Your task to perform on an android device: install app "The Home Depot" Image 0: 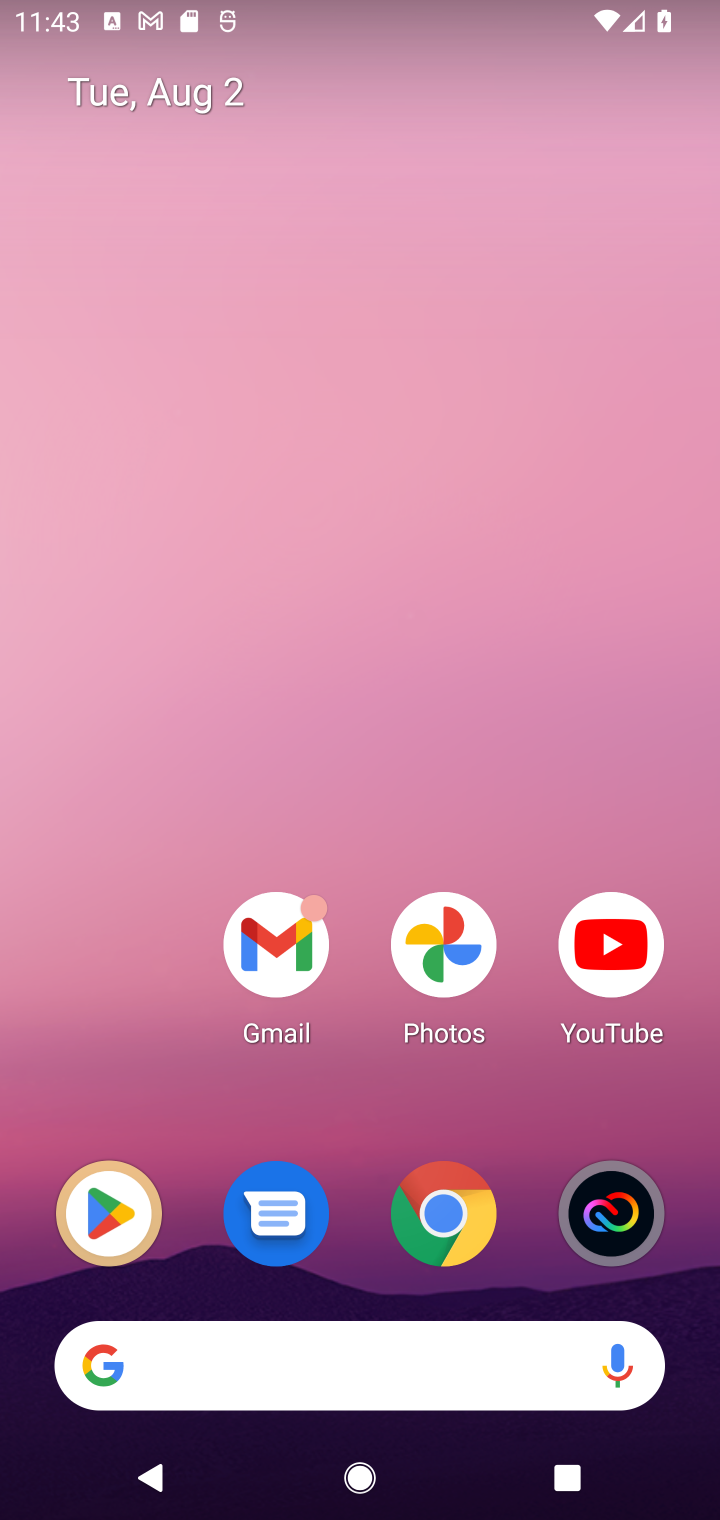
Step 0: click (95, 1201)
Your task to perform on an android device: install app "The Home Depot" Image 1: 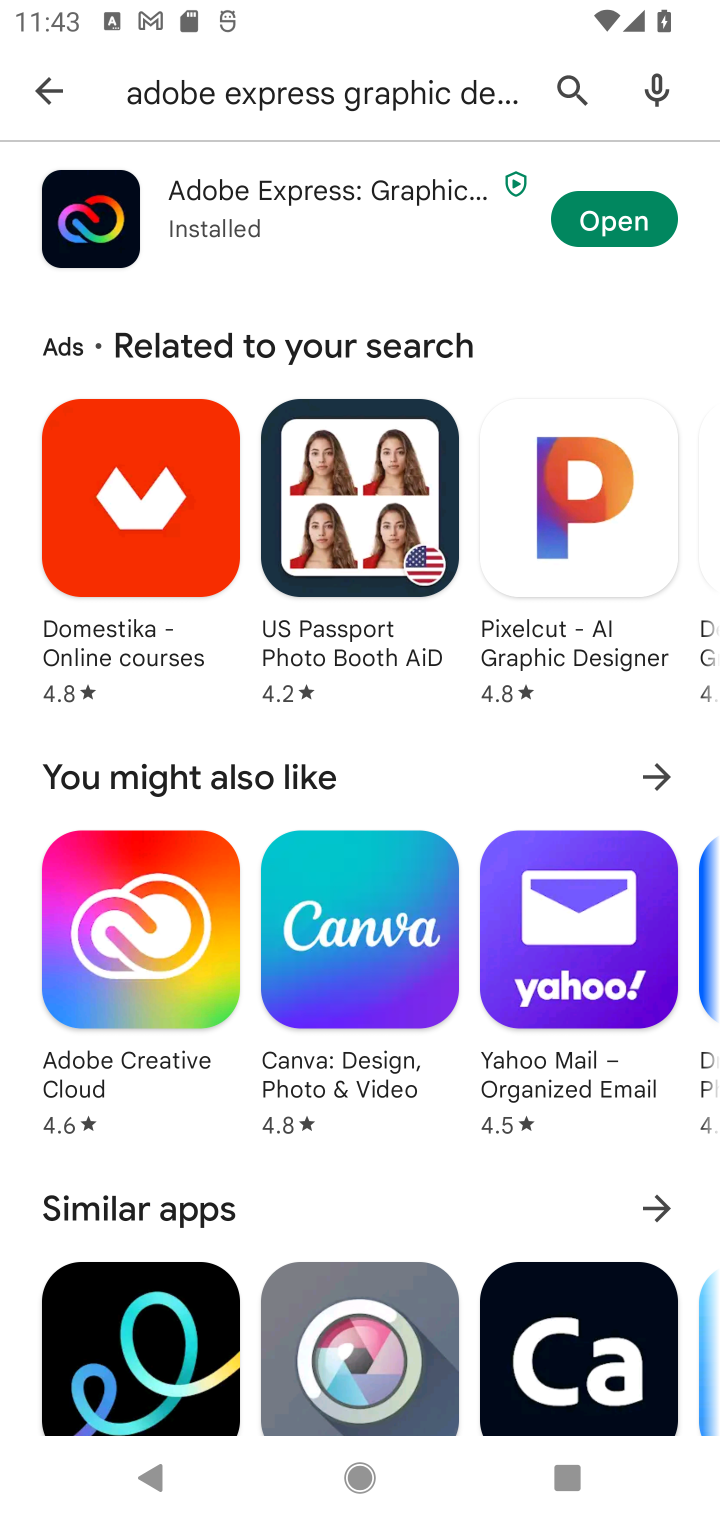
Step 1: click (56, 73)
Your task to perform on an android device: install app "The Home Depot" Image 2: 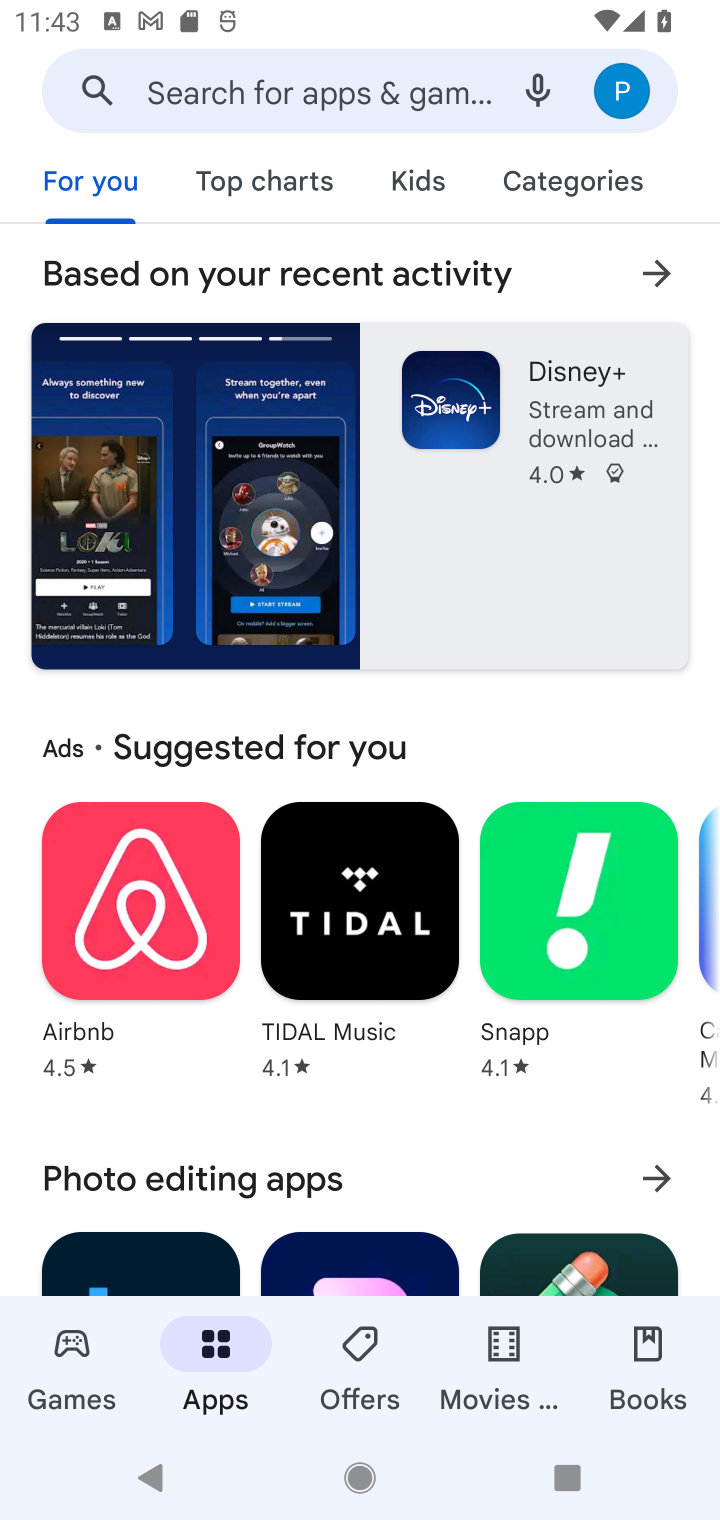
Step 2: click (293, 73)
Your task to perform on an android device: install app "The Home Depot" Image 3: 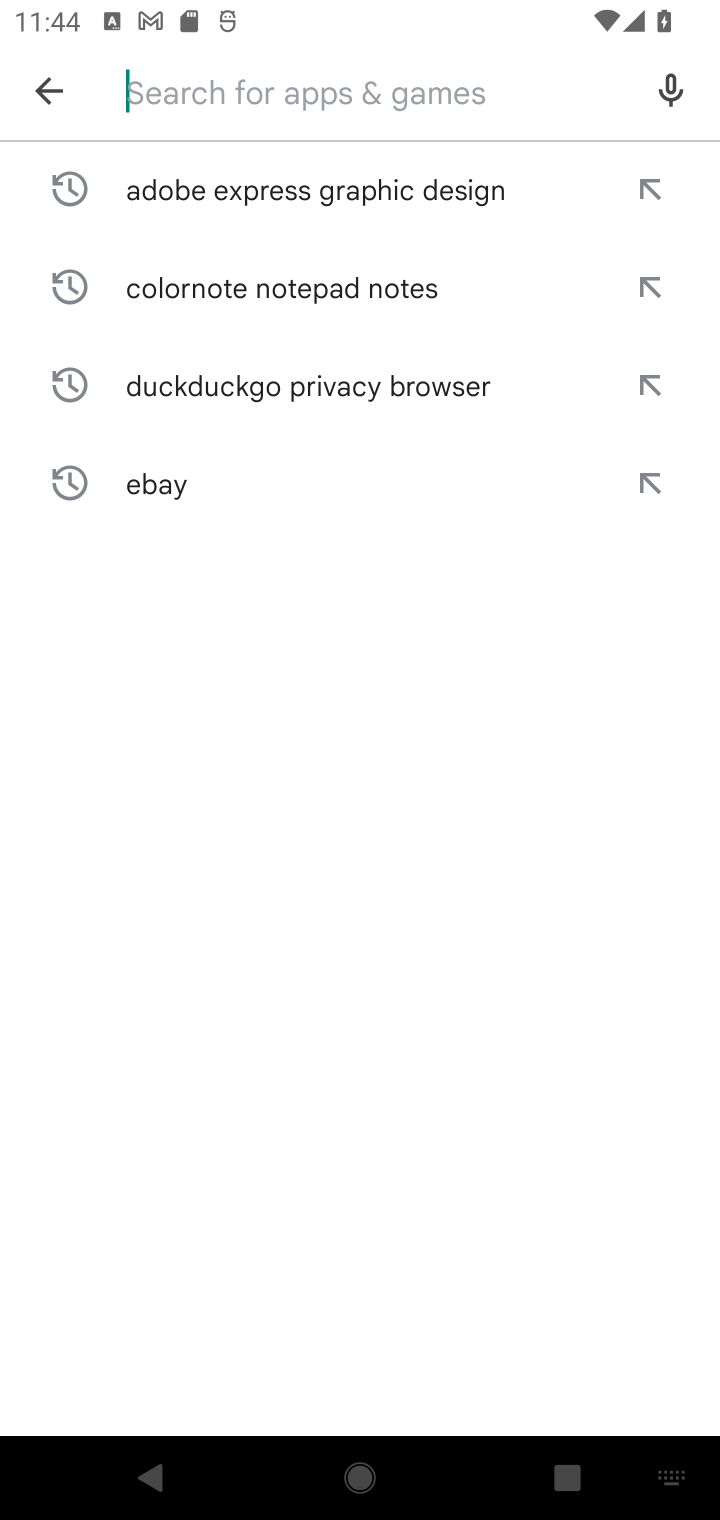
Step 3: type "The Home Depot"
Your task to perform on an android device: install app "The Home Depot" Image 4: 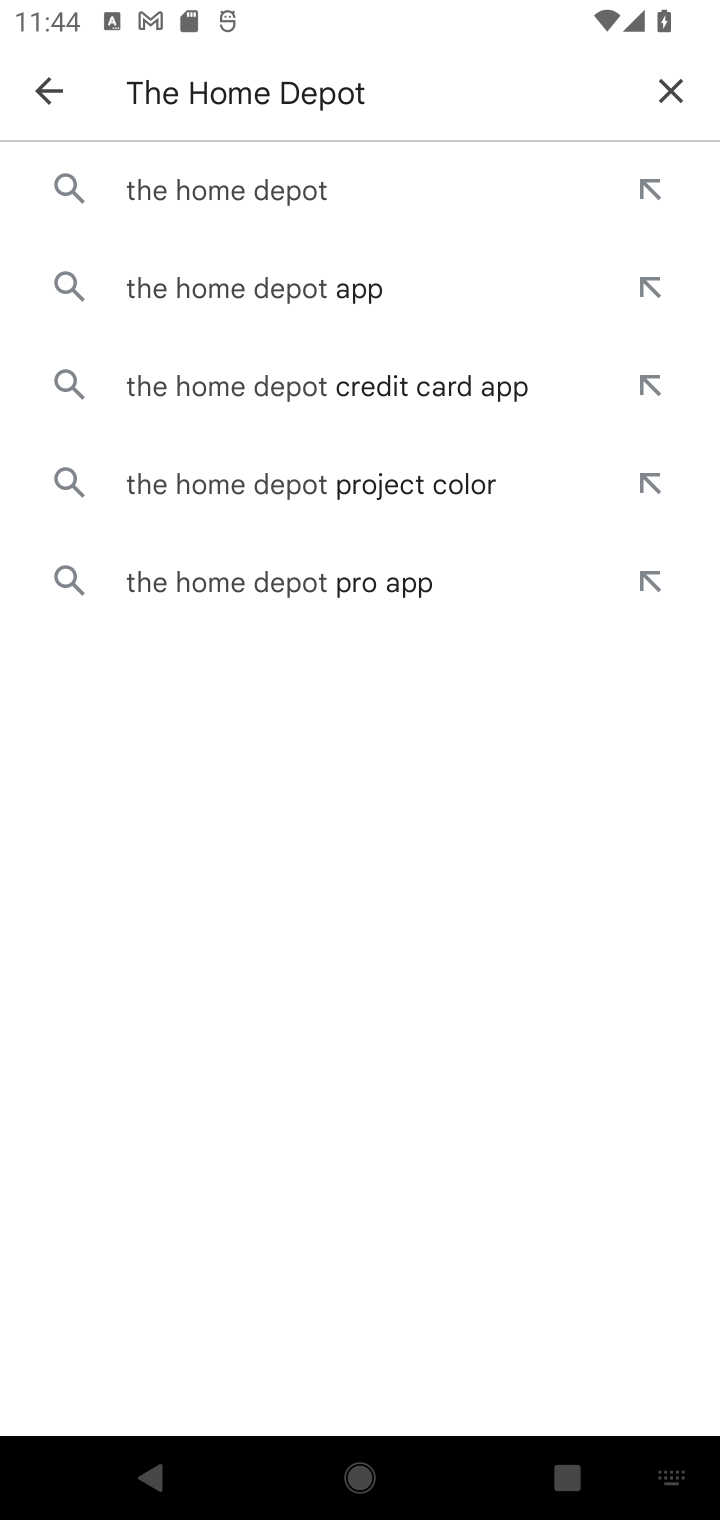
Step 4: click (233, 195)
Your task to perform on an android device: install app "The Home Depot" Image 5: 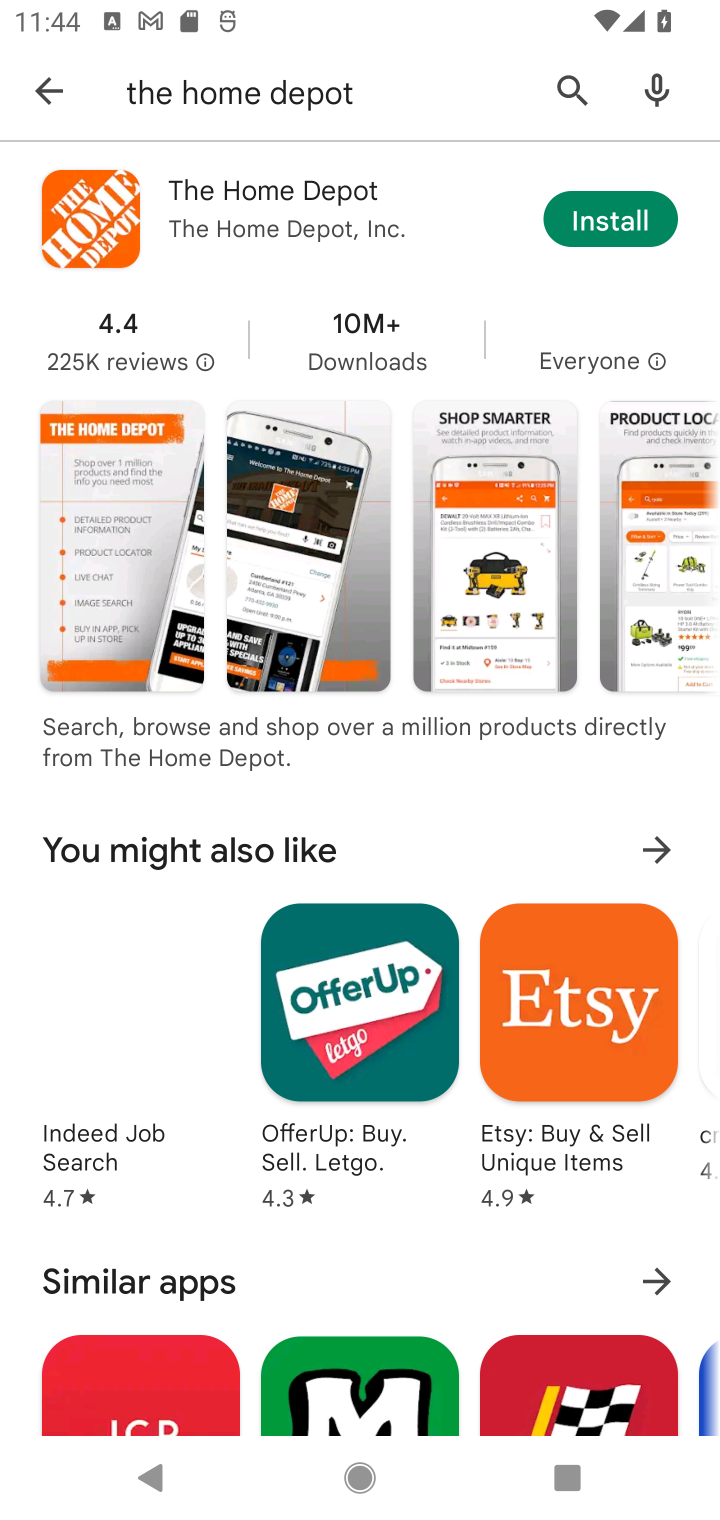
Step 5: click (588, 221)
Your task to perform on an android device: install app "The Home Depot" Image 6: 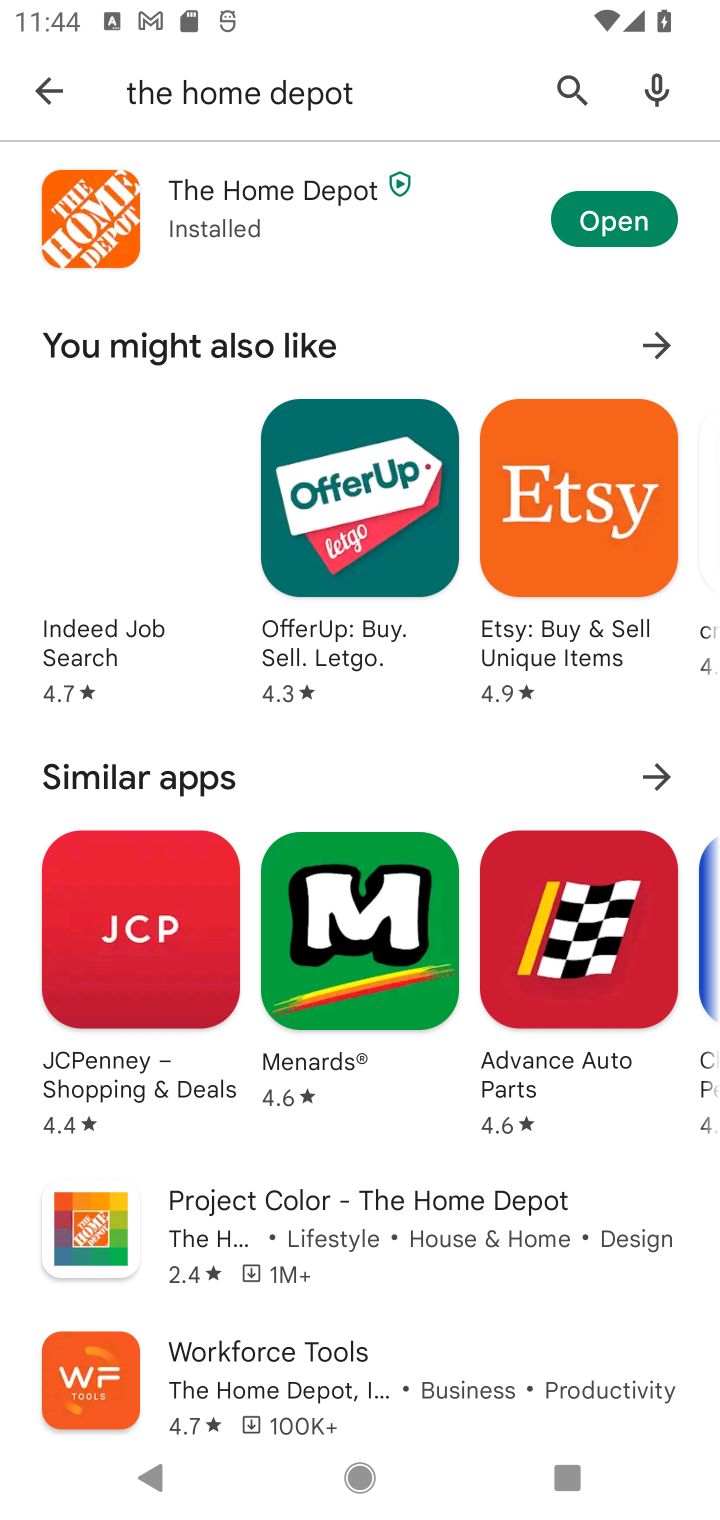
Step 6: task complete